Your task to perform on an android device: Show me recent news Image 0: 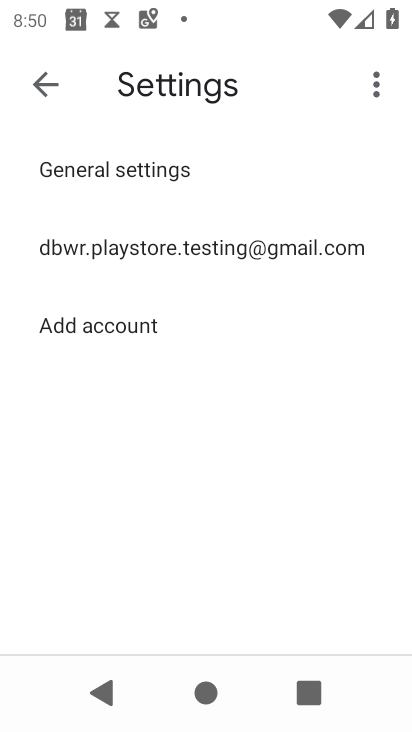
Step 0: press home button
Your task to perform on an android device: Show me recent news Image 1: 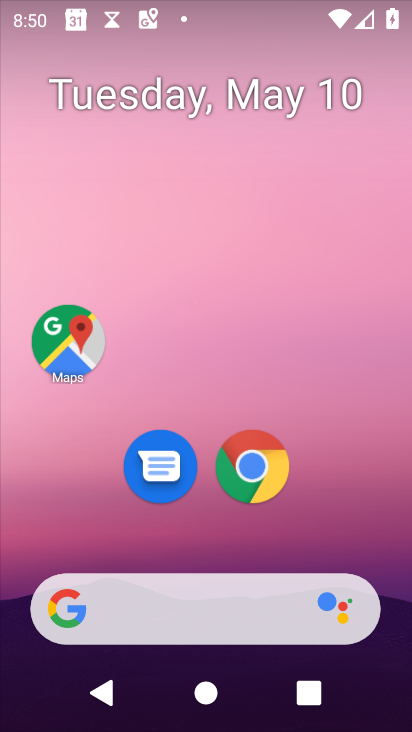
Step 1: drag from (323, 560) to (384, 81)
Your task to perform on an android device: Show me recent news Image 2: 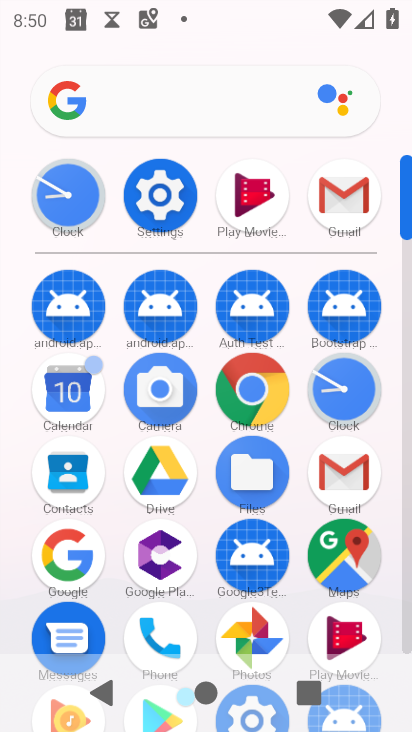
Step 2: click (196, 102)
Your task to perform on an android device: Show me recent news Image 3: 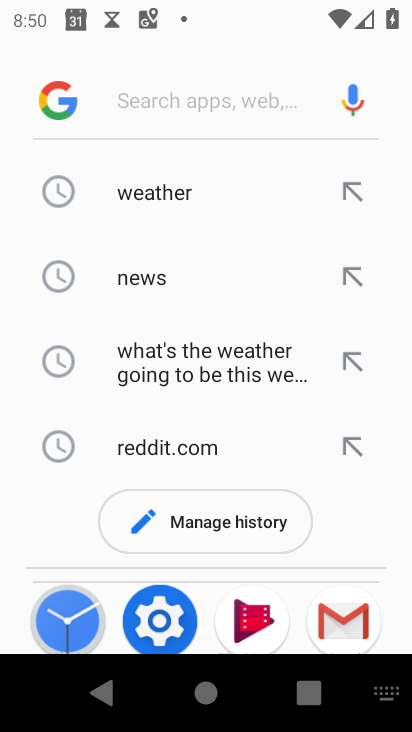
Step 3: type "recent news"
Your task to perform on an android device: Show me recent news Image 4: 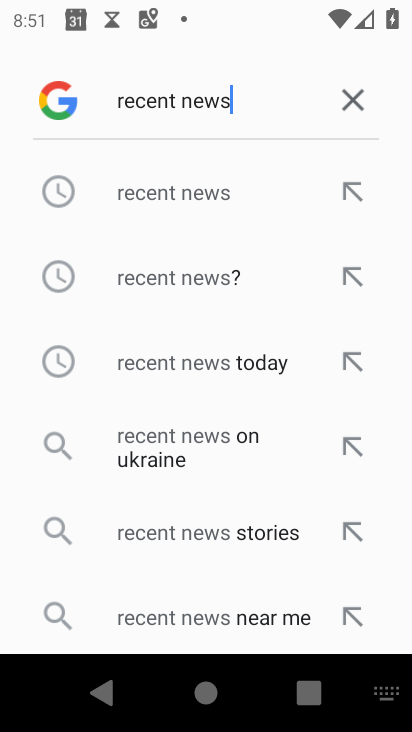
Step 4: click (238, 205)
Your task to perform on an android device: Show me recent news Image 5: 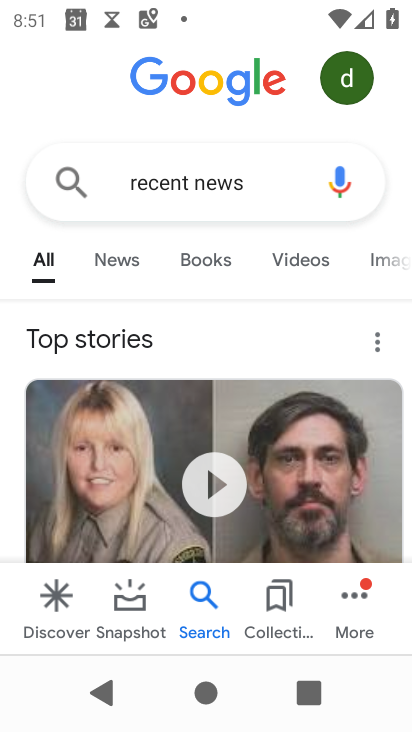
Step 5: click (130, 256)
Your task to perform on an android device: Show me recent news Image 6: 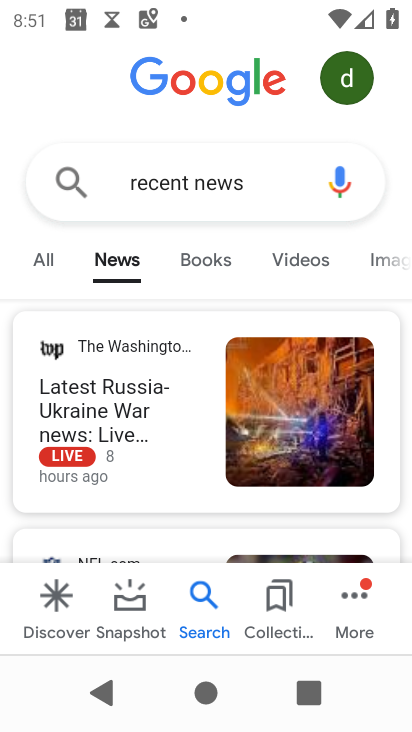
Step 6: task complete